Your task to perform on an android device: Go to settings Image 0: 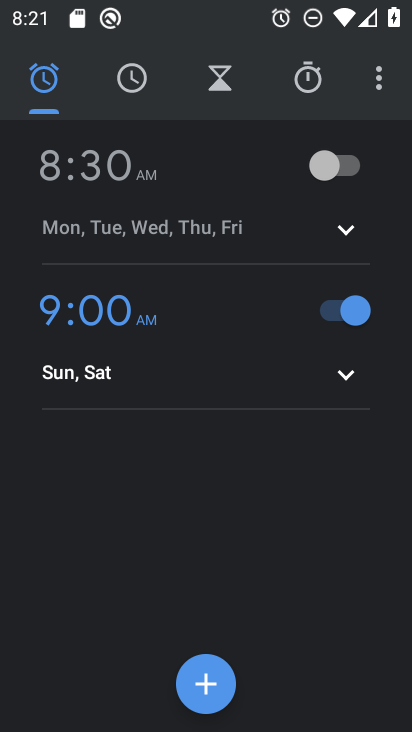
Step 0: press home button
Your task to perform on an android device: Go to settings Image 1: 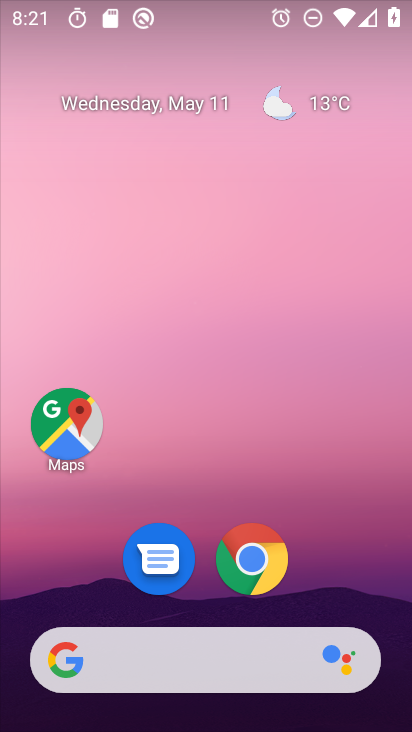
Step 1: drag from (344, 612) to (294, 15)
Your task to perform on an android device: Go to settings Image 2: 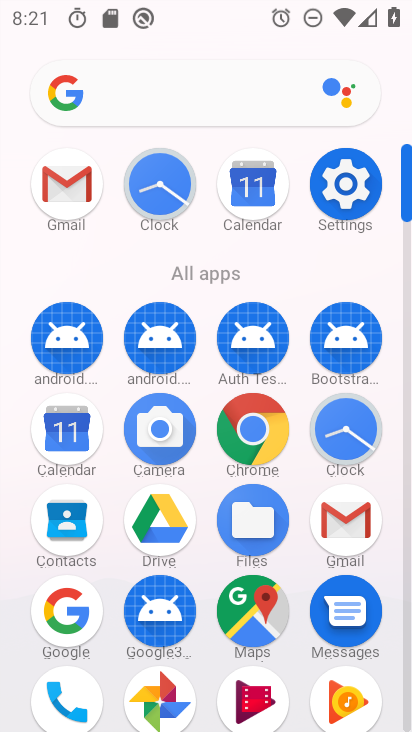
Step 2: click (345, 178)
Your task to perform on an android device: Go to settings Image 3: 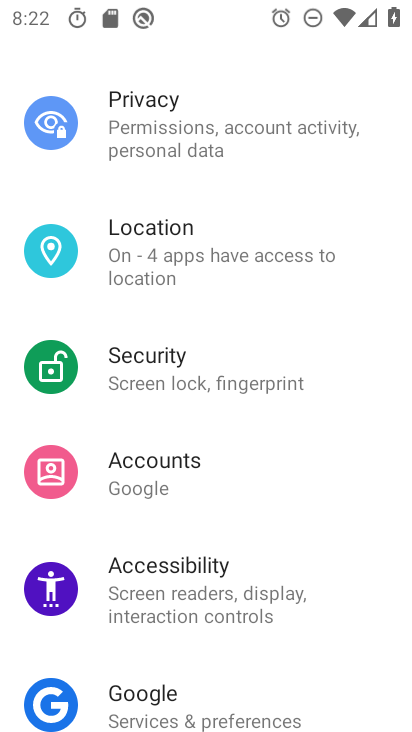
Step 3: task complete